Your task to perform on an android device: Open Google Chrome and click the shortcut for Amazon.com Image 0: 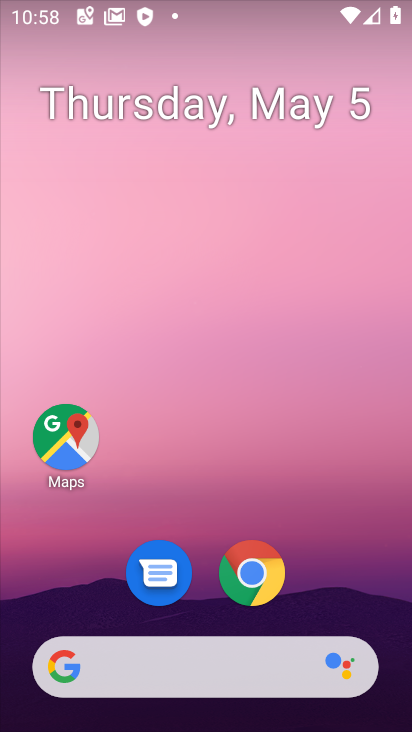
Step 0: click (311, 270)
Your task to perform on an android device: Open Google Chrome and click the shortcut for Amazon.com Image 1: 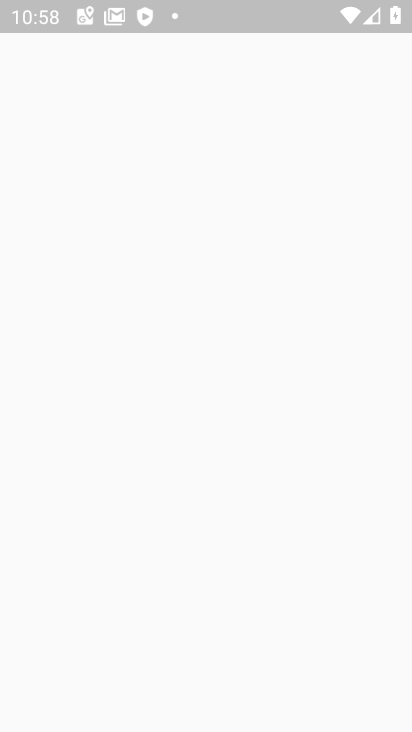
Step 1: press home button
Your task to perform on an android device: Open Google Chrome and click the shortcut for Amazon.com Image 2: 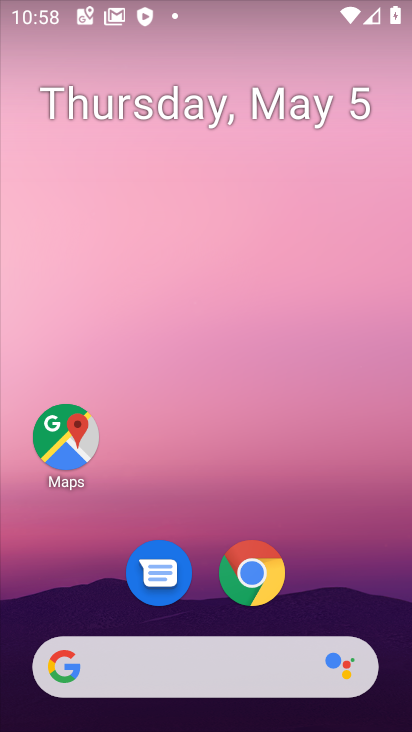
Step 2: drag from (323, 603) to (334, 179)
Your task to perform on an android device: Open Google Chrome and click the shortcut for Amazon.com Image 3: 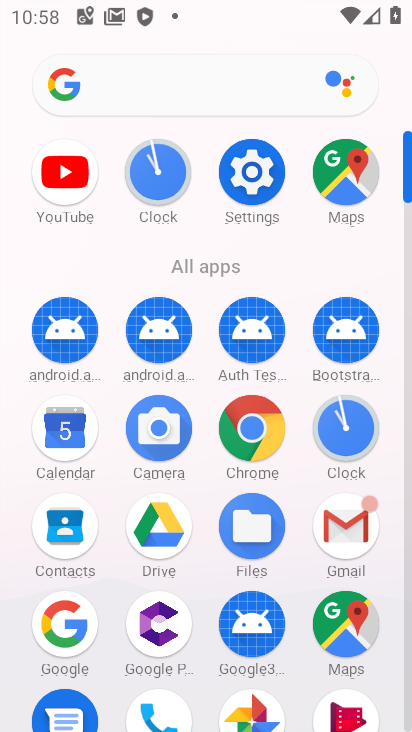
Step 3: click (232, 428)
Your task to perform on an android device: Open Google Chrome and click the shortcut for Amazon.com Image 4: 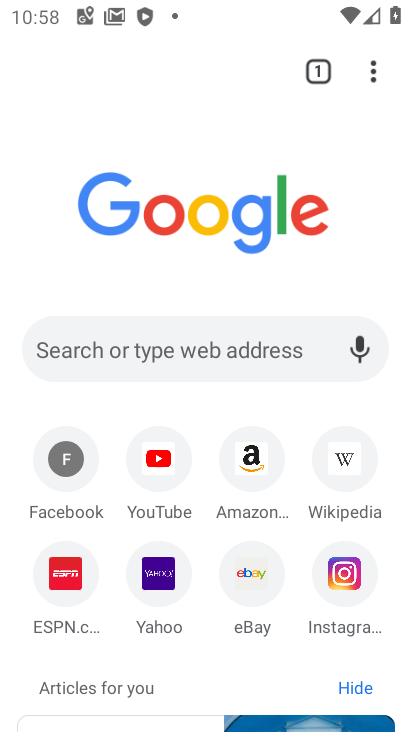
Step 4: click (247, 453)
Your task to perform on an android device: Open Google Chrome and click the shortcut for Amazon.com Image 5: 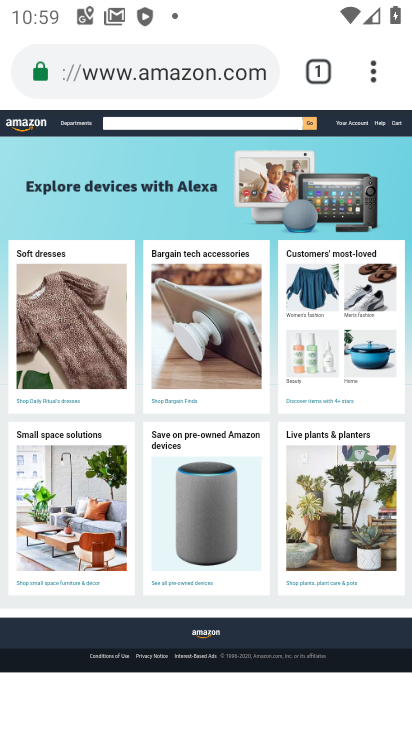
Step 5: task complete